Your task to perform on an android device: Empty the shopping cart on costco.com. Image 0: 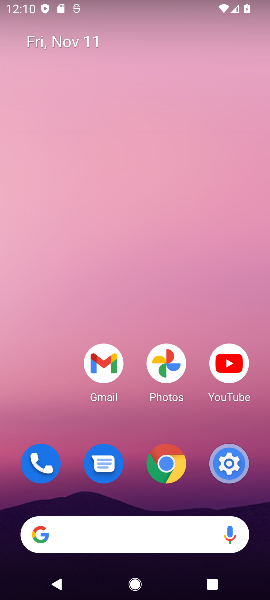
Step 0: click (165, 461)
Your task to perform on an android device: Empty the shopping cart on costco.com. Image 1: 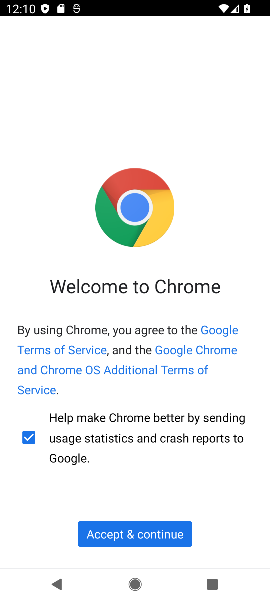
Step 1: click (163, 532)
Your task to perform on an android device: Empty the shopping cart on costco.com. Image 2: 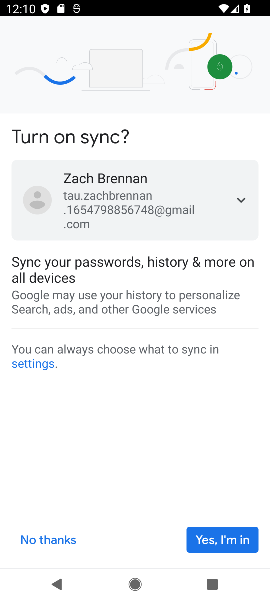
Step 2: click (215, 541)
Your task to perform on an android device: Empty the shopping cart on costco.com. Image 3: 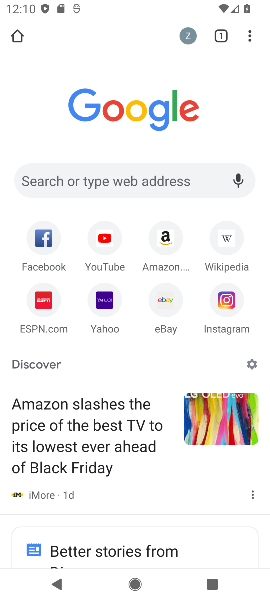
Step 3: click (124, 173)
Your task to perform on an android device: Empty the shopping cart on costco.com. Image 4: 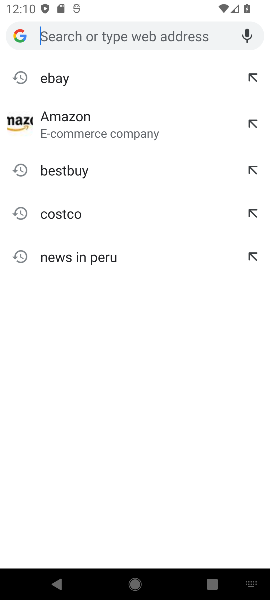
Step 4: type "costco.com"
Your task to perform on an android device: Empty the shopping cart on costco.com. Image 5: 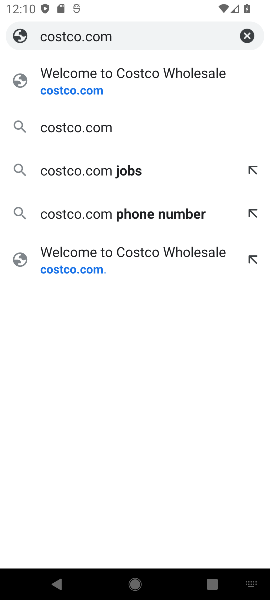
Step 5: click (99, 121)
Your task to perform on an android device: Empty the shopping cart on costco.com. Image 6: 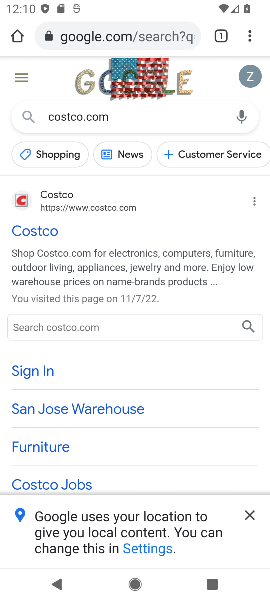
Step 6: click (118, 208)
Your task to perform on an android device: Empty the shopping cart on costco.com. Image 7: 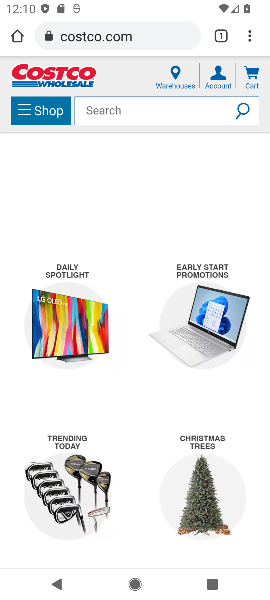
Step 7: click (249, 77)
Your task to perform on an android device: Empty the shopping cart on costco.com. Image 8: 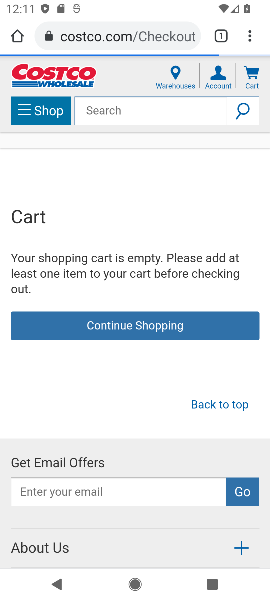
Step 8: task complete